Your task to perform on an android device: turn on airplane mode Image 0: 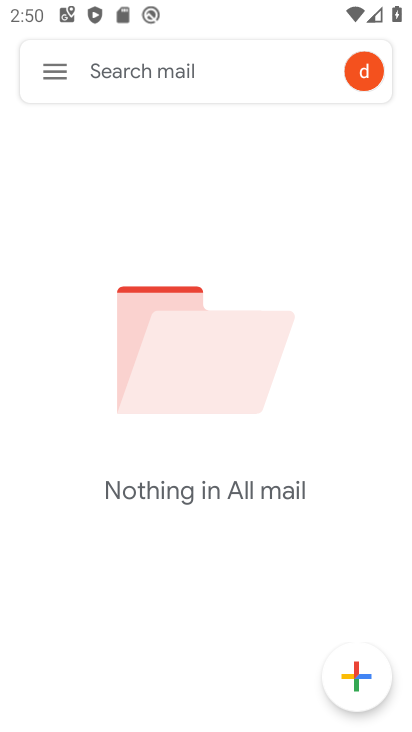
Step 0: drag from (325, 0) to (318, 547)
Your task to perform on an android device: turn on airplane mode Image 1: 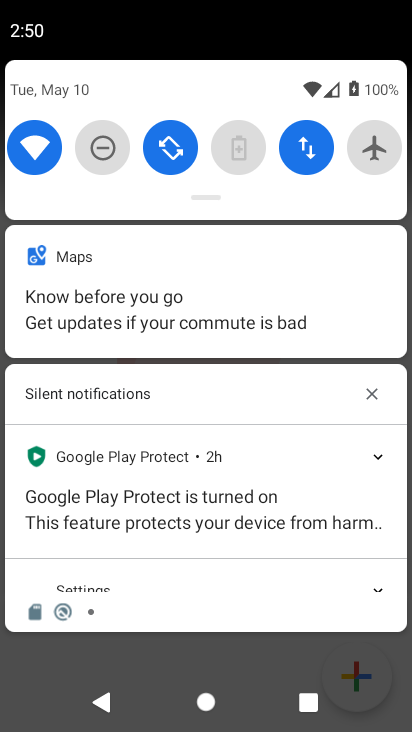
Step 1: click (375, 145)
Your task to perform on an android device: turn on airplane mode Image 2: 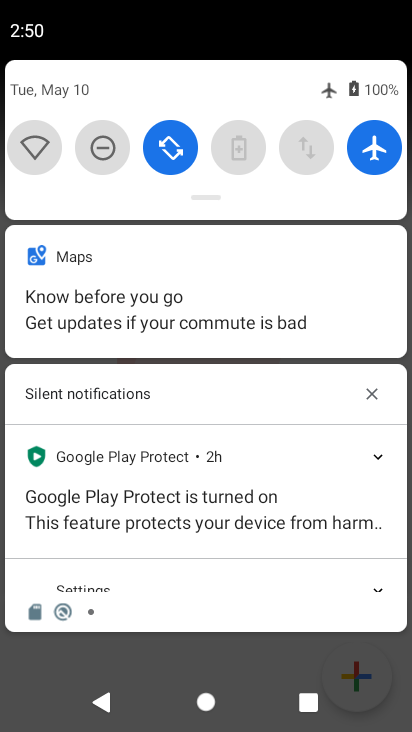
Step 2: task complete